Your task to perform on an android device: Go to network settings Image 0: 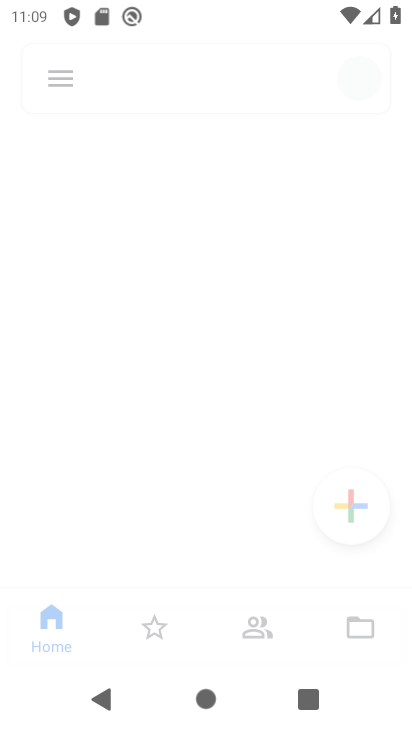
Step 0: drag from (337, 531) to (297, 10)
Your task to perform on an android device: Go to network settings Image 1: 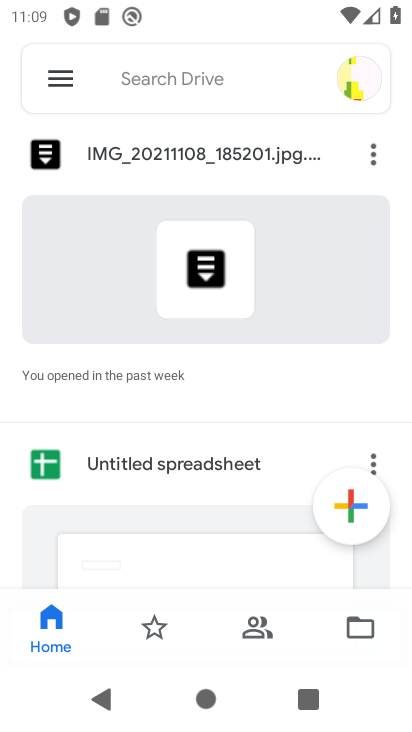
Step 1: press back button
Your task to perform on an android device: Go to network settings Image 2: 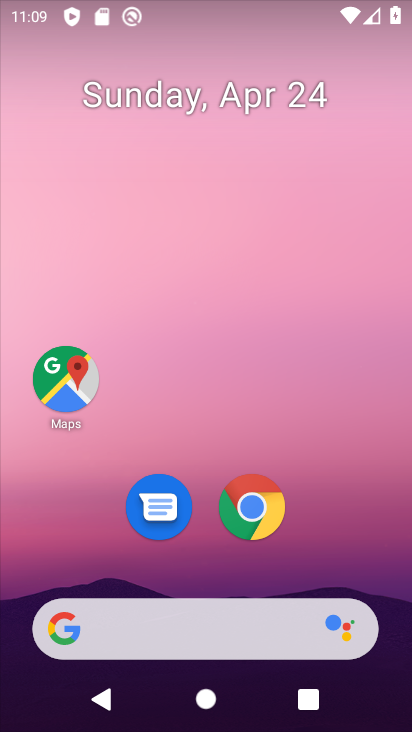
Step 2: drag from (340, 507) to (251, 4)
Your task to perform on an android device: Go to network settings Image 3: 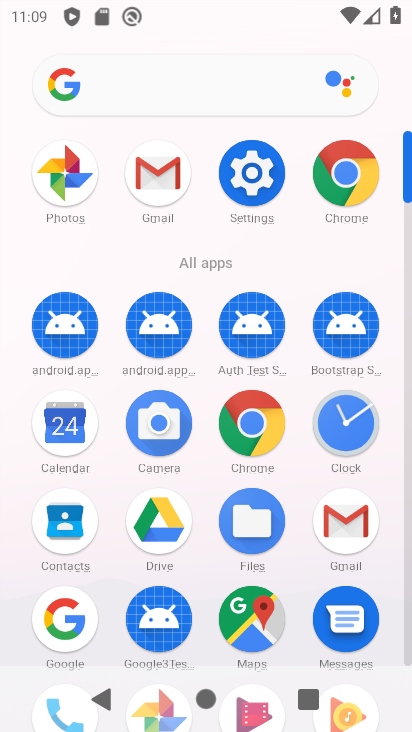
Step 3: drag from (10, 525) to (19, 214)
Your task to perform on an android device: Go to network settings Image 4: 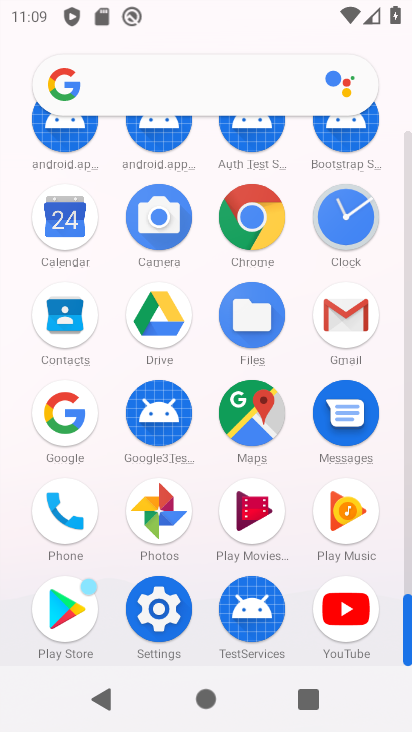
Step 4: click (157, 612)
Your task to perform on an android device: Go to network settings Image 5: 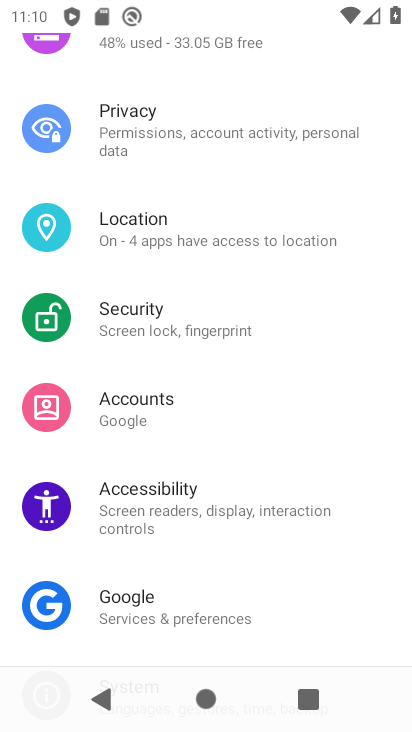
Step 5: drag from (225, 195) to (217, 584)
Your task to perform on an android device: Go to network settings Image 6: 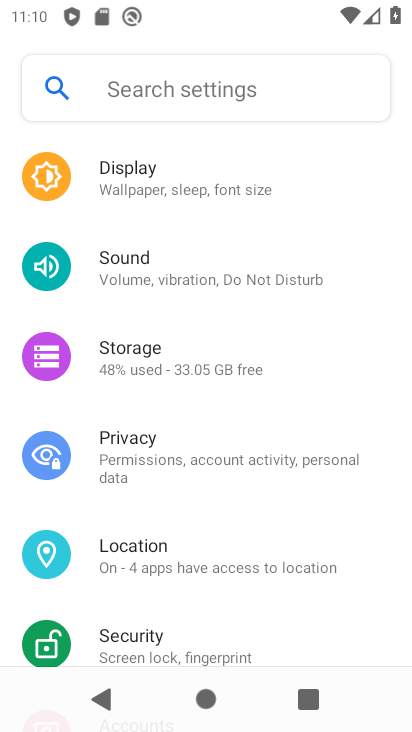
Step 6: drag from (248, 223) to (238, 571)
Your task to perform on an android device: Go to network settings Image 7: 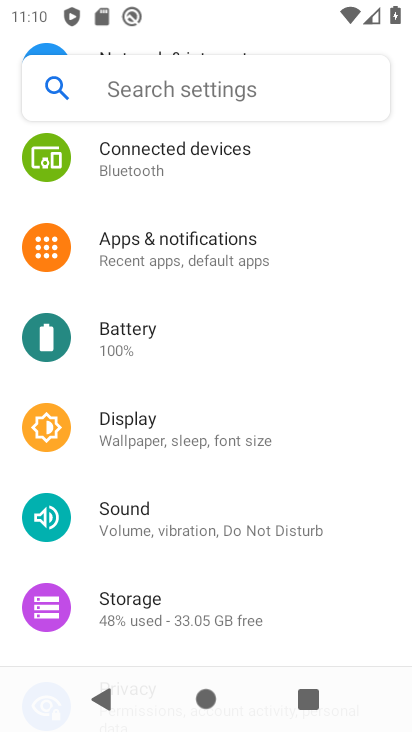
Step 7: drag from (244, 195) to (235, 583)
Your task to perform on an android device: Go to network settings Image 8: 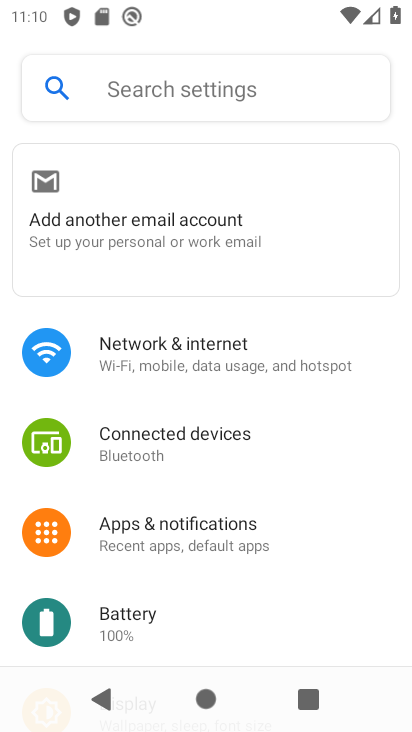
Step 8: click (219, 343)
Your task to perform on an android device: Go to network settings Image 9: 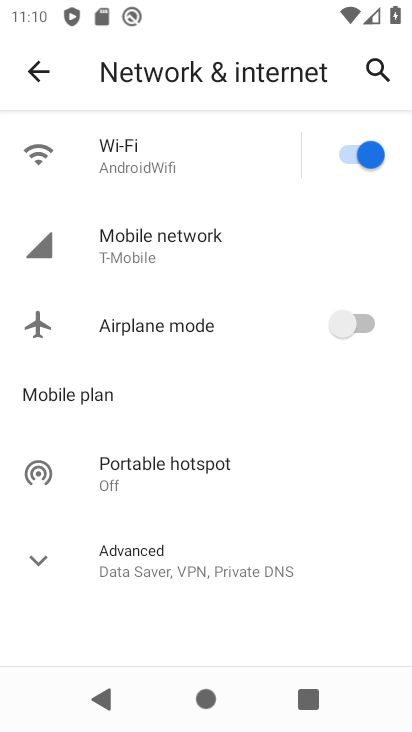
Step 9: click (169, 231)
Your task to perform on an android device: Go to network settings Image 10: 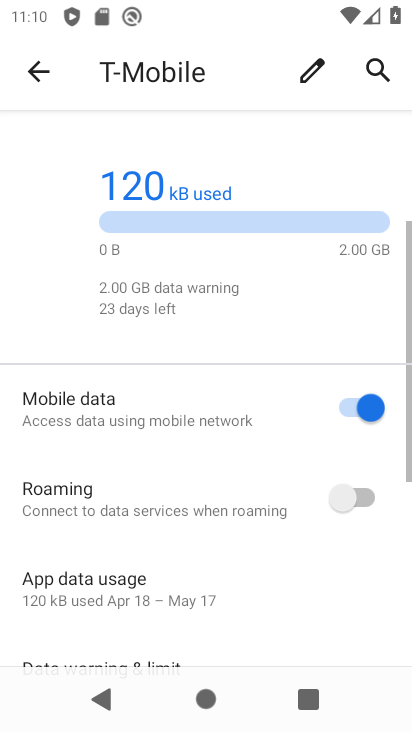
Step 10: drag from (165, 551) to (198, 126)
Your task to perform on an android device: Go to network settings Image 11: 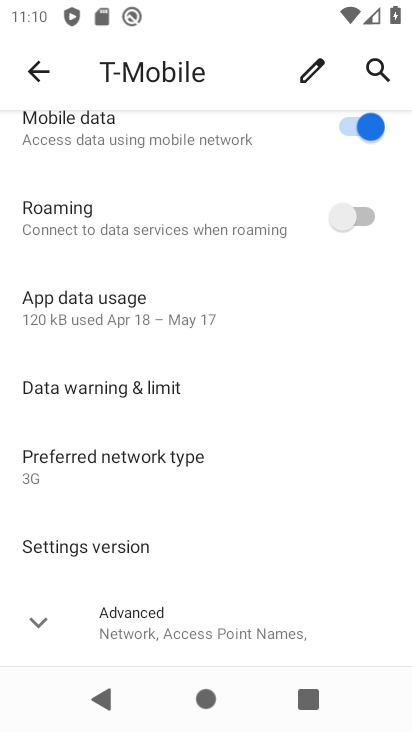
Step 11: drag from (200, 513) to (214, 172)
Your task to perform on an android device: Go to network settings Image 12: 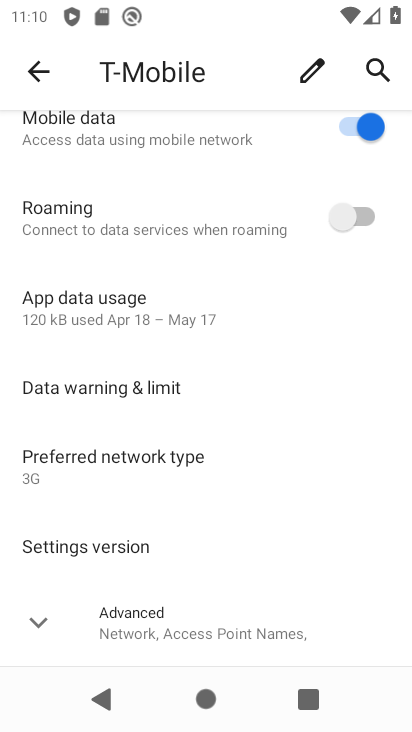
Step 12: drag from (177, 262) to (182, 615)
Your task to perform on an android device: Go to network settings Image 13: 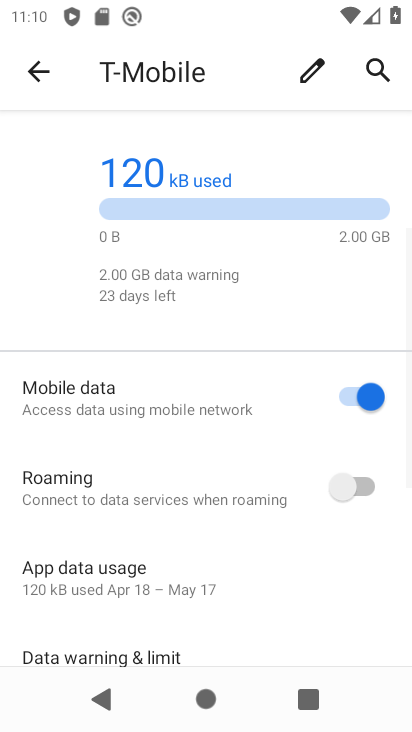
Step 13: drag from (193, 220) to (187, 574)
Your task to perform on an android device: Go to network settings Image 14: 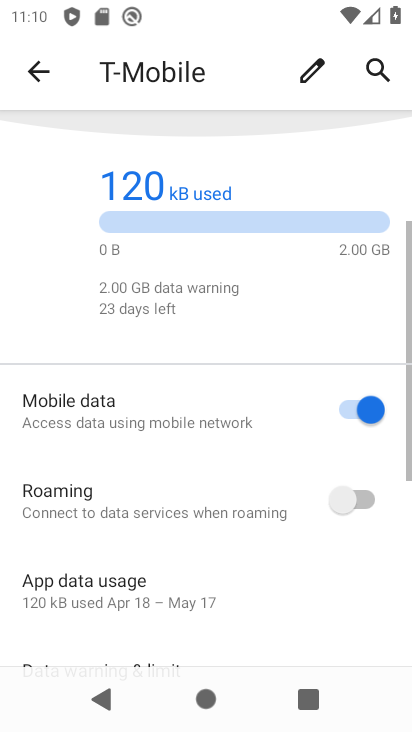
Step 14: drag from (187, 551) to (210, 225)
Your task to perform on an android device: Go to network settings Image 15: 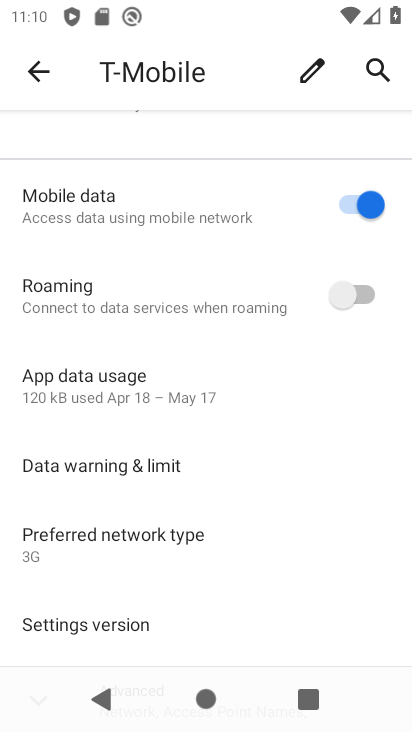
Step 15: drag from (205, 600) to (217, 180)
Your task to perform on an android device: Go to network settings Image 16: 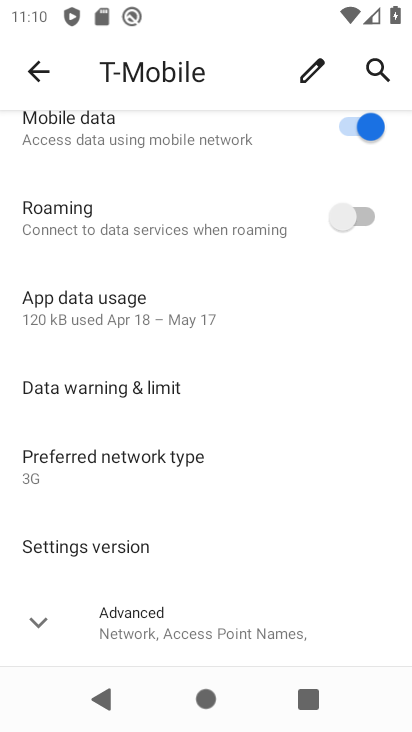
Step 16: click (34, 624)
Your task to perform on an android device: Go to network settings Image 17: 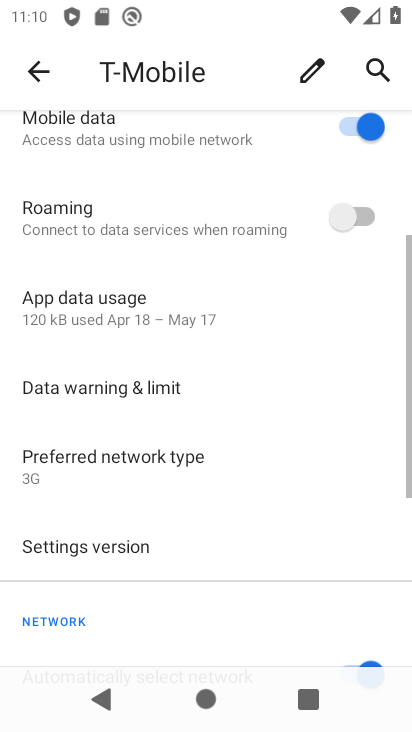
Step 17: task complete